Your task to perform on an android device: open app "Pluto TV - Live TV and Movies" (install if not already installed), go to login, and select forgot password Image 0: 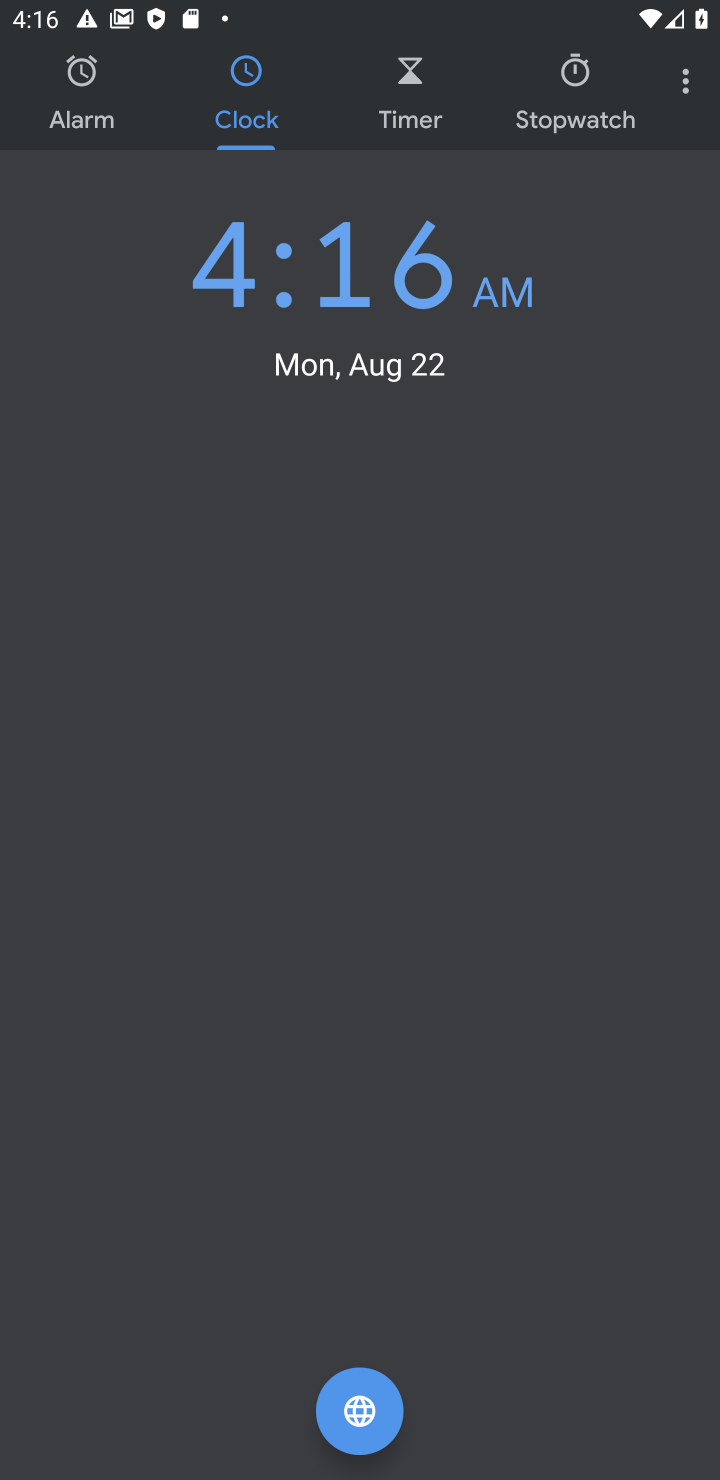
Step 0: press home button
Your task to perform on an android device: open app "Pluto TV - Live TV and Movies" (install if not already installed), go to login, and select forgot password Image 1: 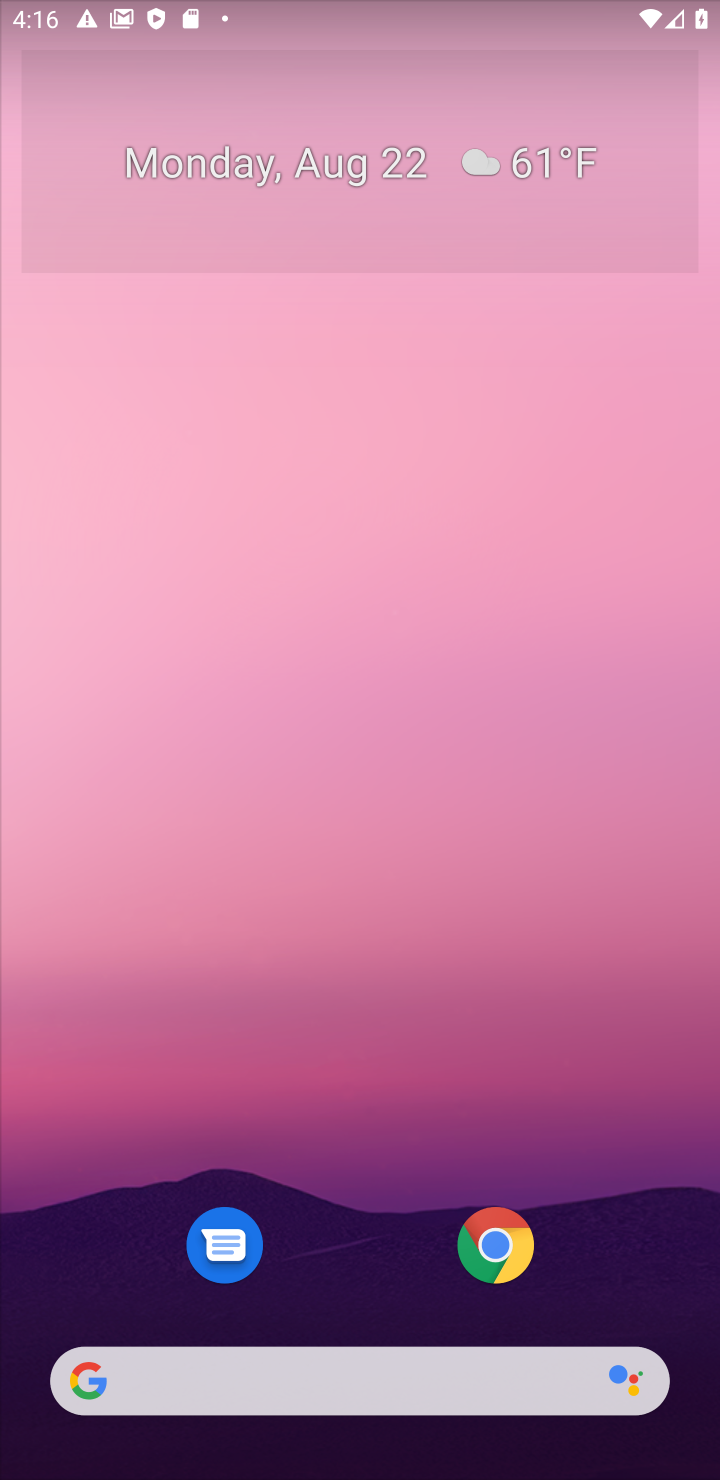
Step 1: drag from (629, 1193) to (605, 217)
Your task to perform on an android device: open app "Pluto TV - Live TV and Movies" (install if not already installed), go to login, and select forgot password Image 2: 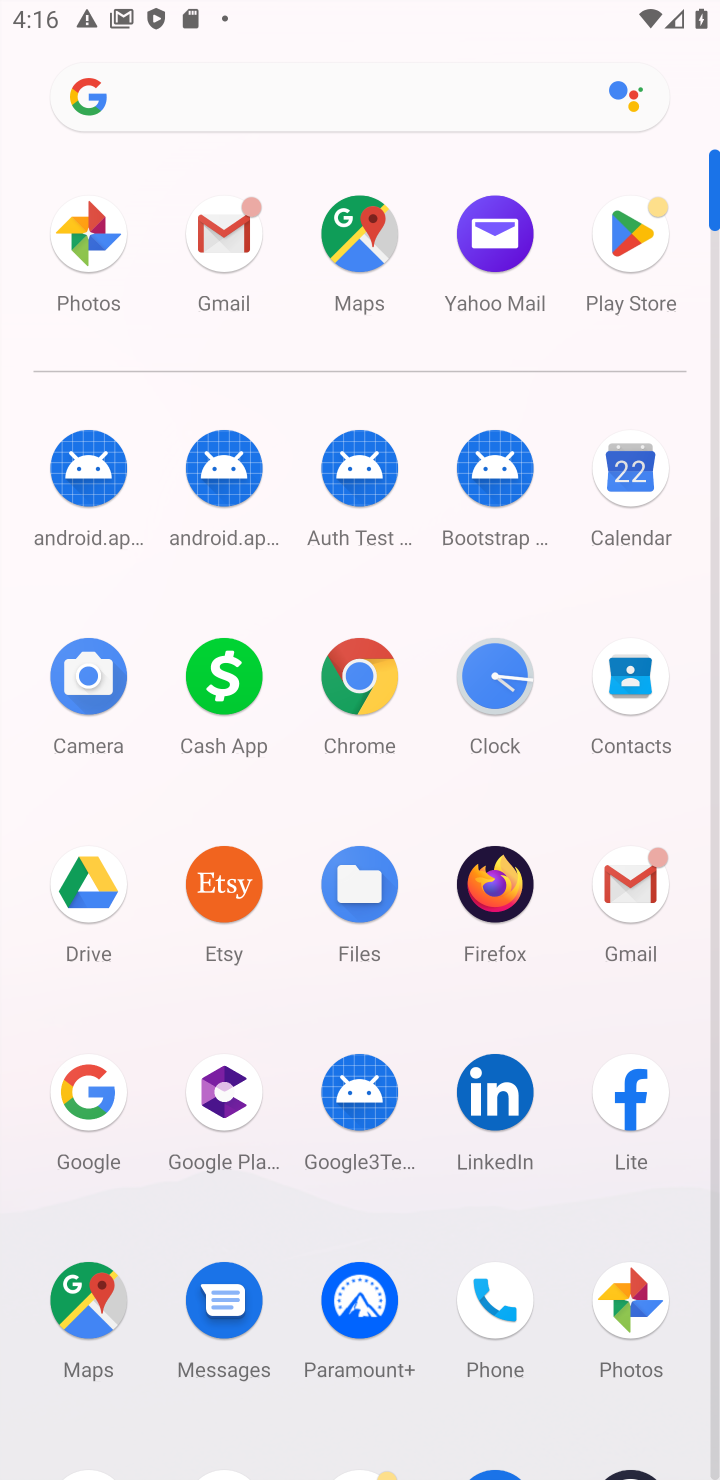
Step 2: click (634, 228)
Your task to perform on an android device: open app "Pluto TV - Live TV and Movies" (install if not already installed), go to login, and select forgot password Image 3: 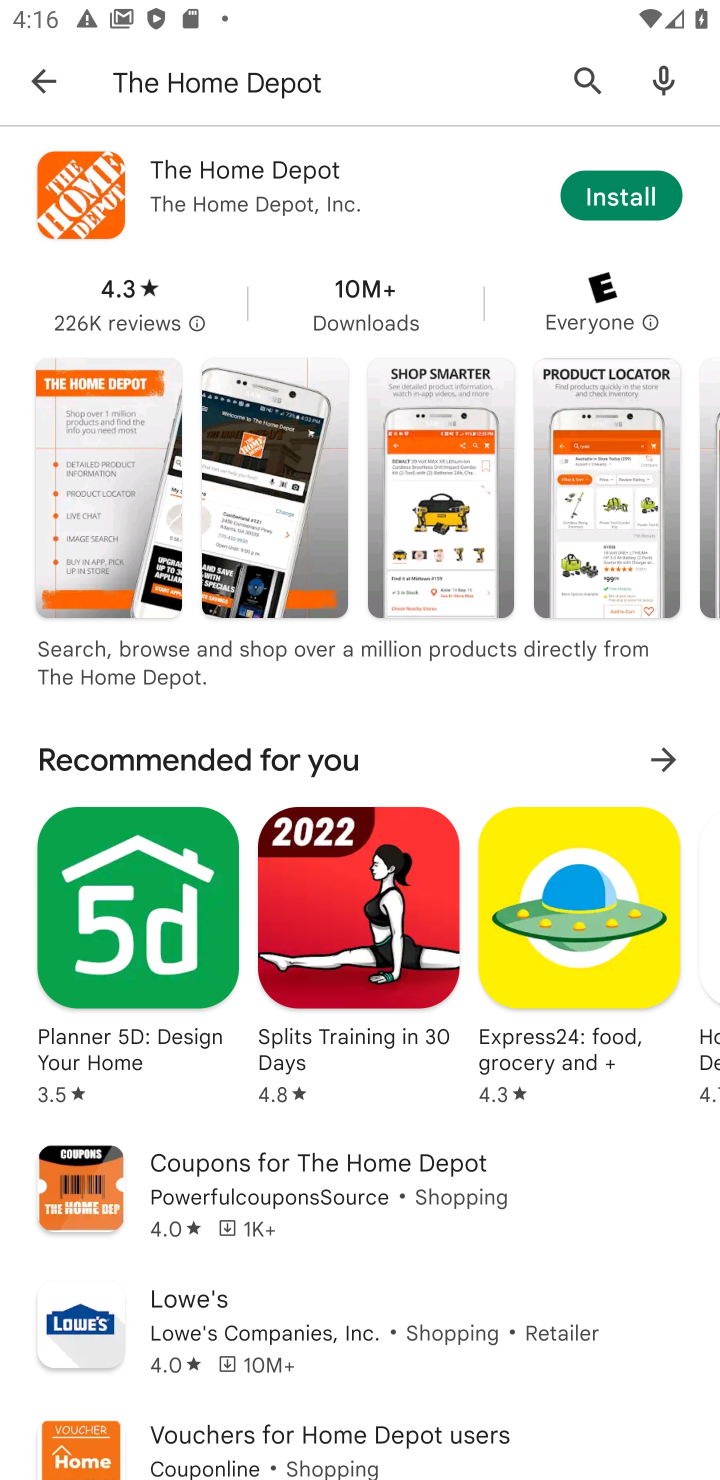
Step 3: press back button
Your task to perform on an android device: open app "Pluto TV - Live TV and Movies" (install if not already installed), go to login, and select forgot password Image 4: 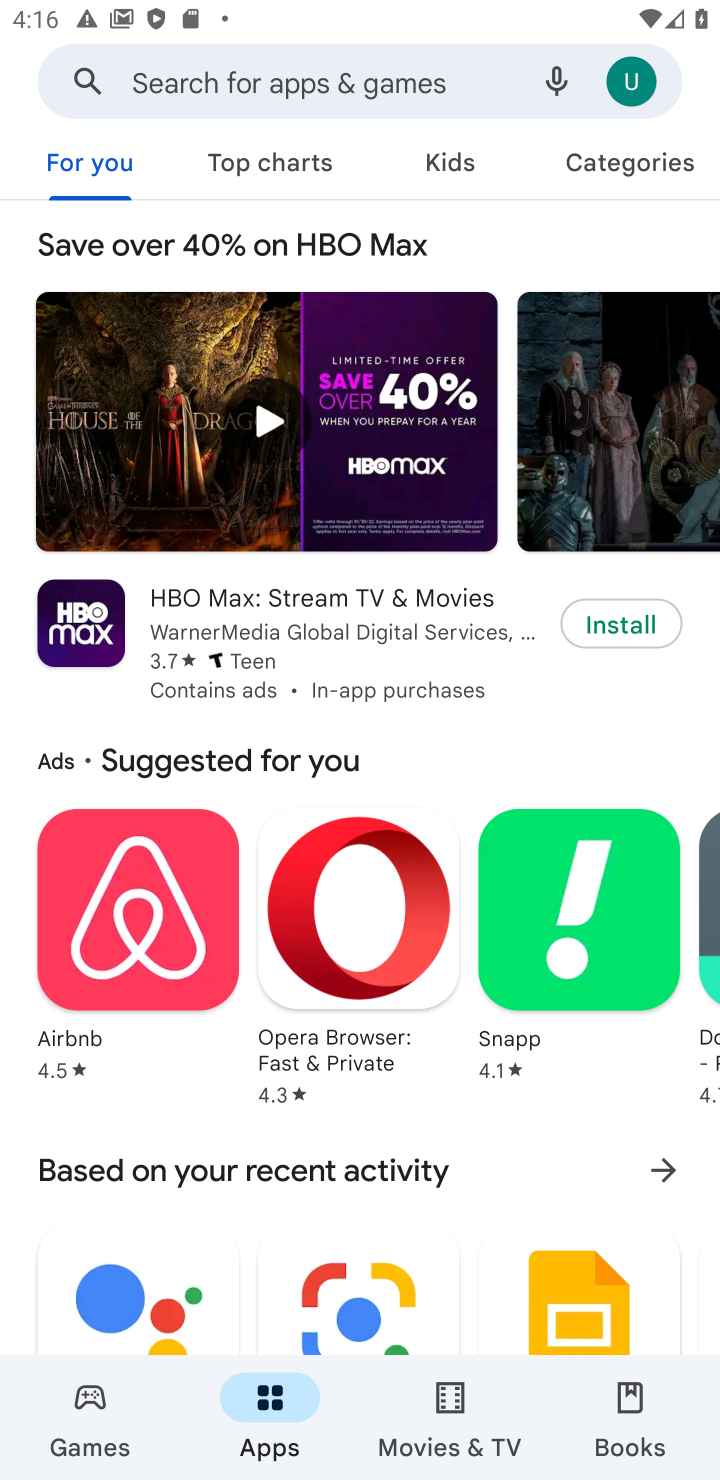
Step 4: click (338, 97)
Your task to perform on an android device: open app "Pluto TV - Live TV and Movies" (install if not already installed), go to login, and select forgot password Image 5: 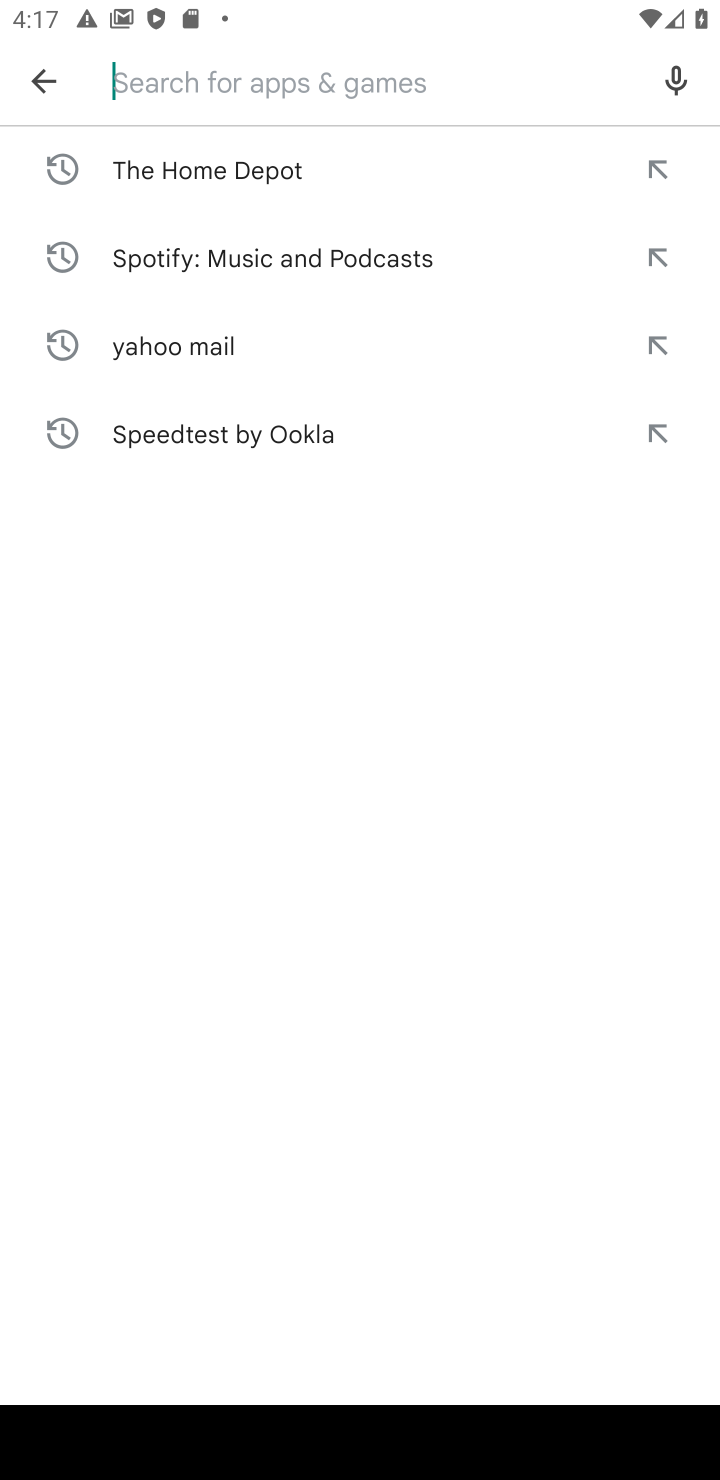
Step 5: press enter
Your task to perform on an android device: open app "Pluto TV - Live TV and Movies" (install if not already installed), go to login, and select forgot password Image 6: 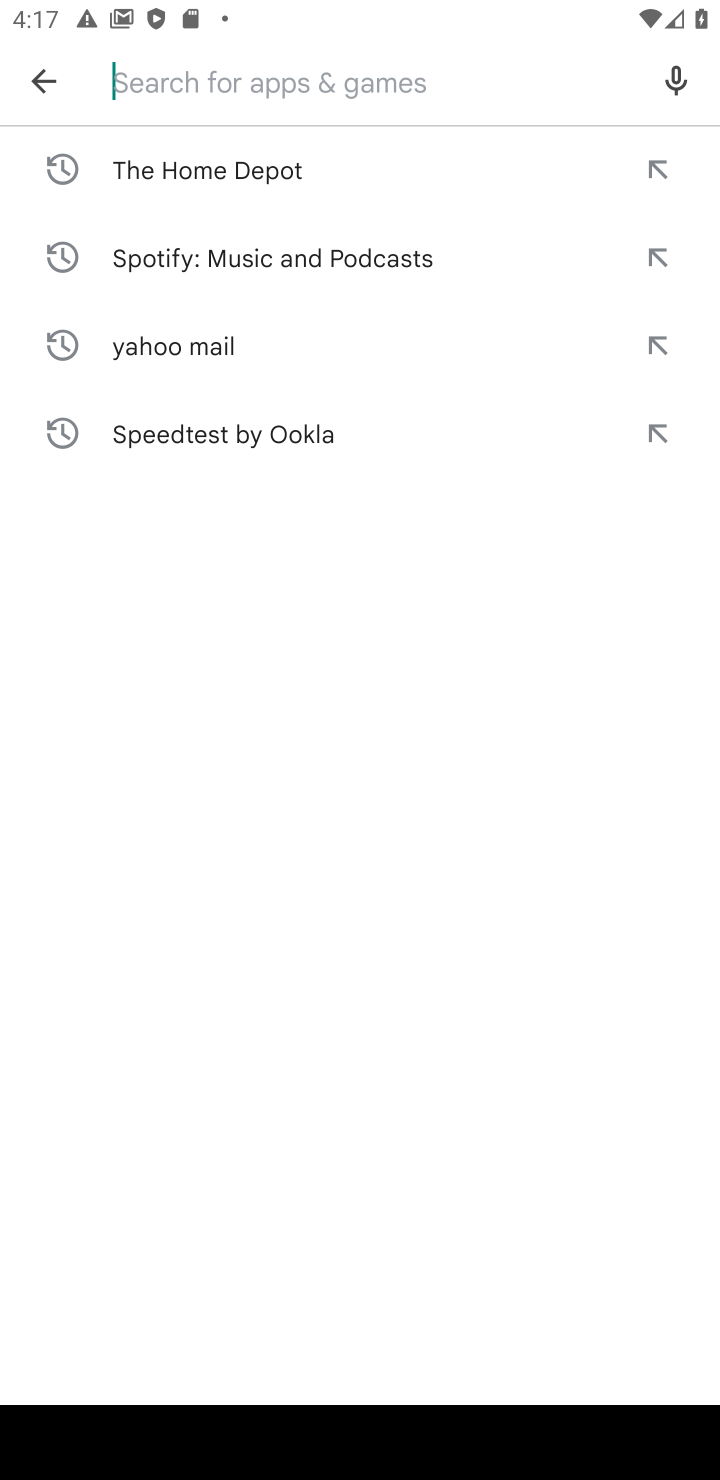
Step 6: type "Pluto TV - Live TV and Movies"
Your task to perform on an android device: open app "Pluto TV - Live TV and Movies" (install if not already installed), go to login, and select forgot password Image 7: 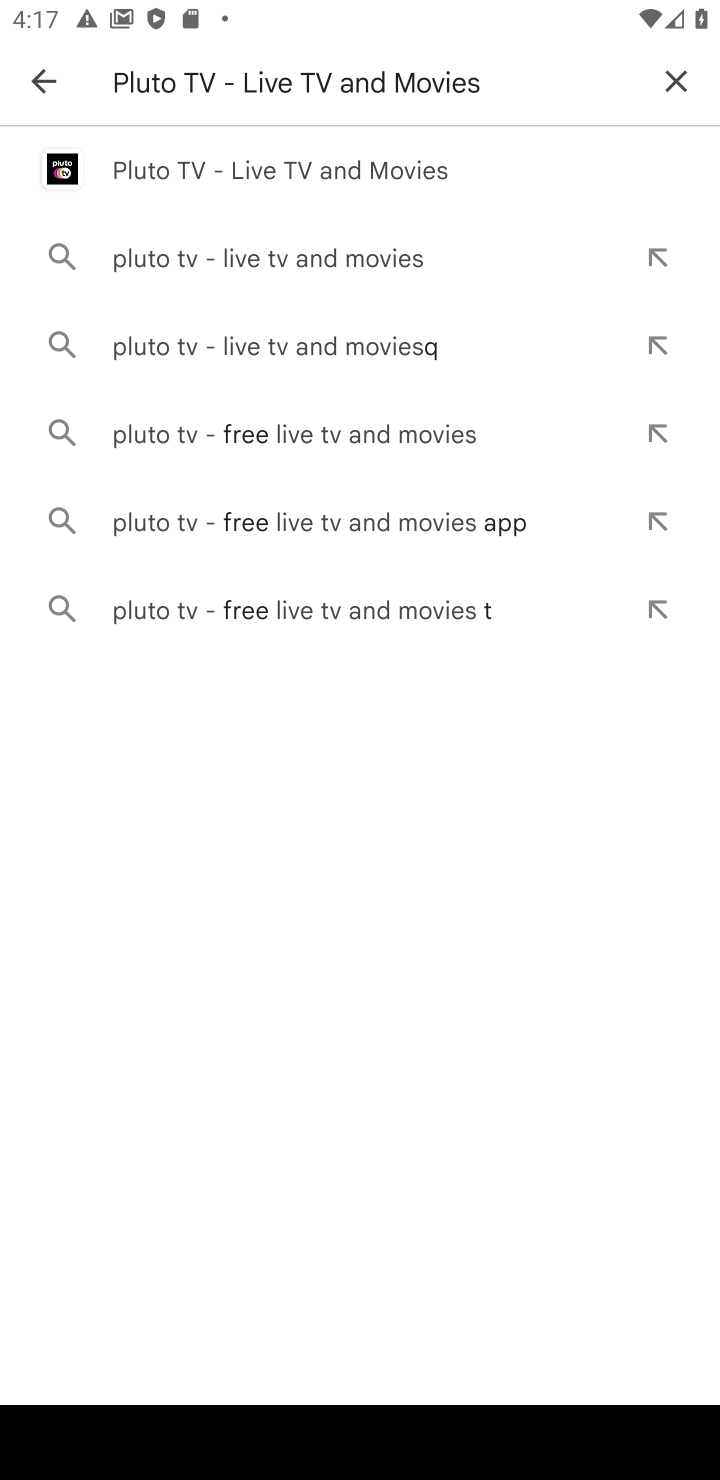
Step 7: click (407, 173)
Your task to perform on an android device: open app "Pluto TV - Live TV and Movies" (install if not already installed), go to login, and select forgot password Image 8: 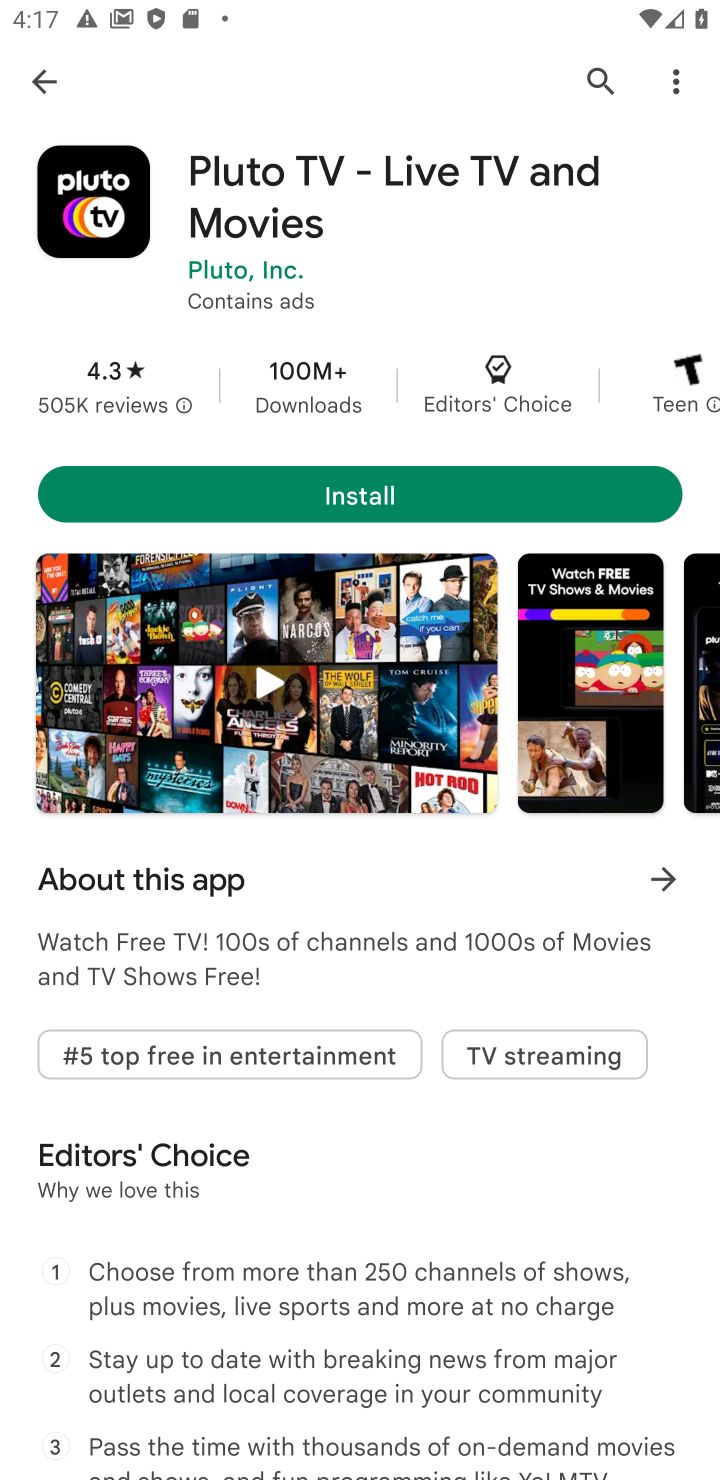
Step 8: click (563, 493)
Your task to perform on an android device: open app "Pluto TV - Live TV and Movies" (install if not already installed), go to login, and select forgot password Image 9: 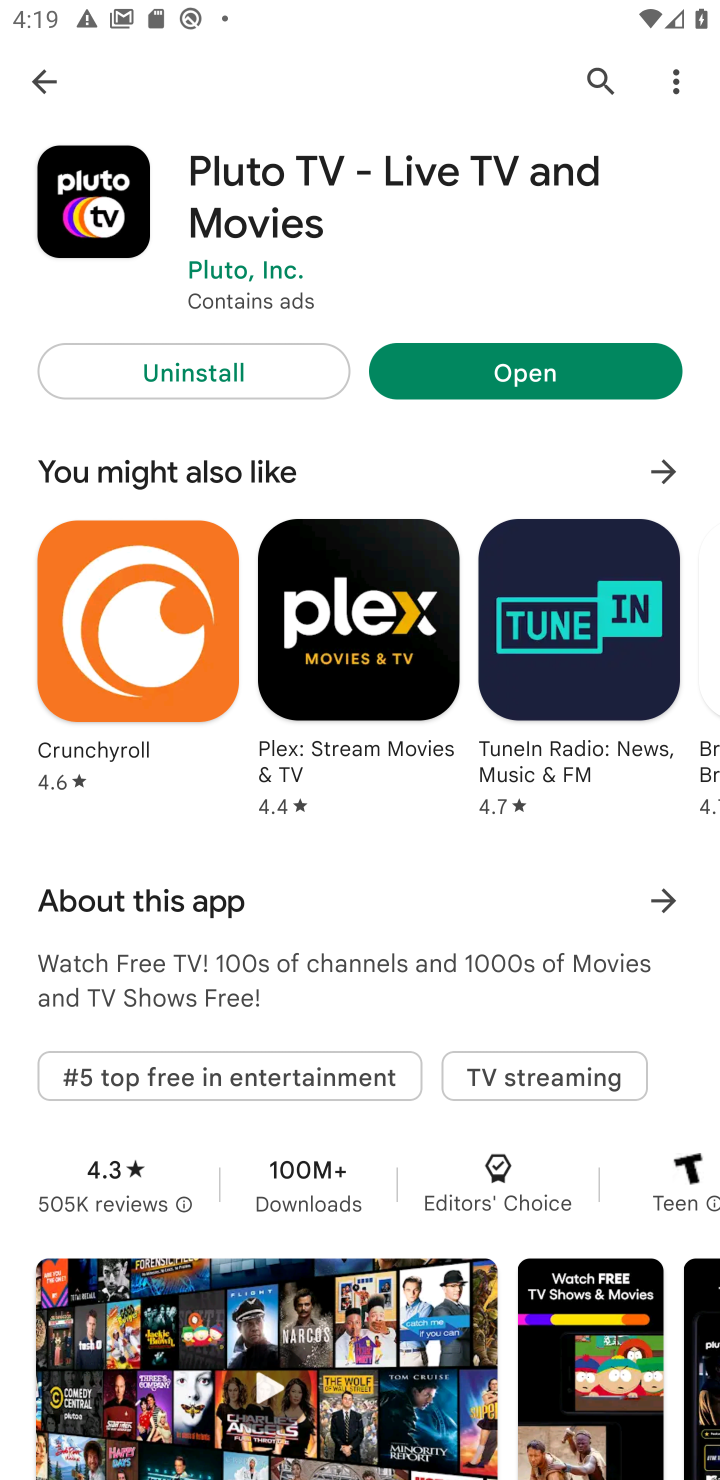
Step 9: click (532, 369)
Your task to perform on an android device: open app "Pluto TV - Live TV and Movies" (install if not already installed), go to login, and select forgot password Image 10: 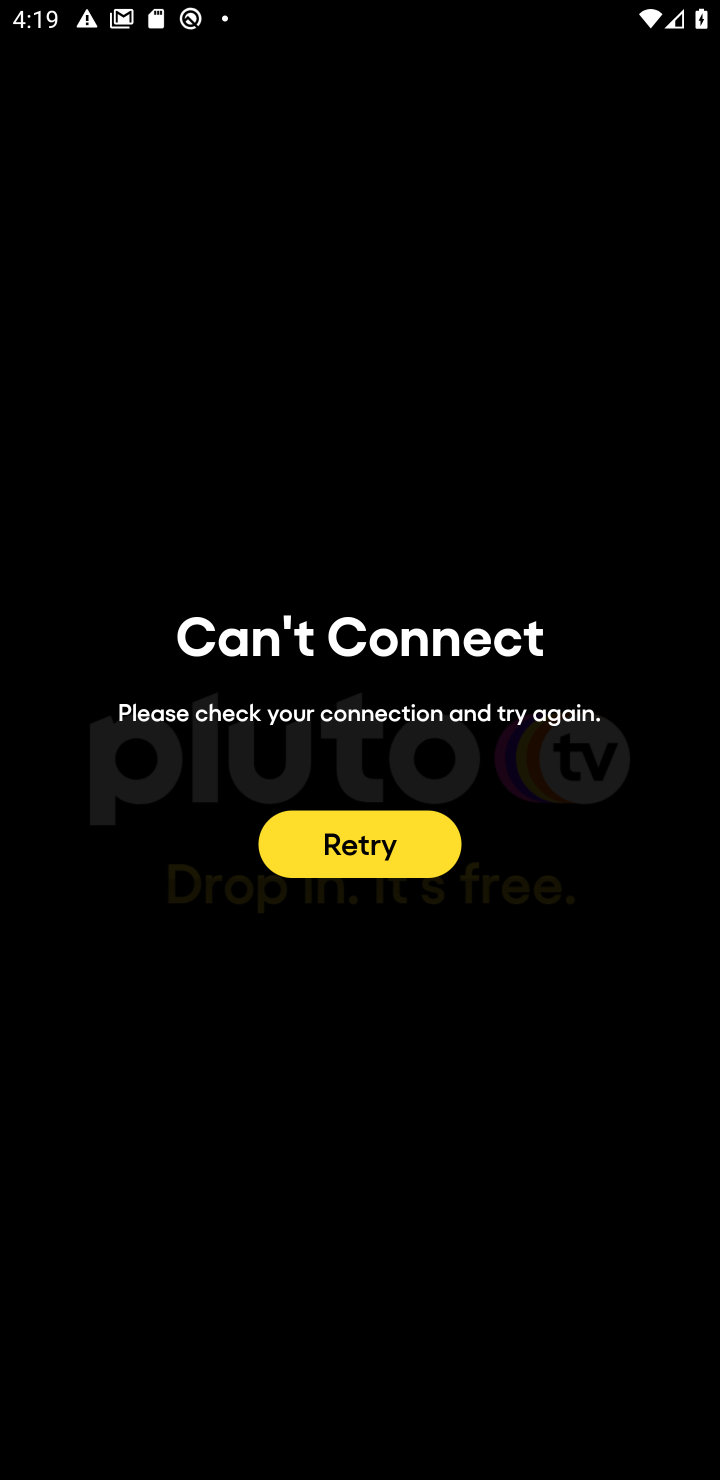
Step 10: task complete